Your task to perform on an android device: Open the calendar app, open the side menu, and click the "Day" option Image 0: 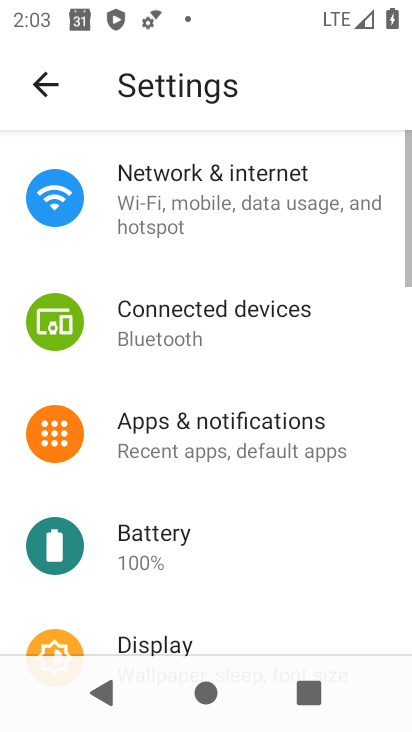
Step 0: press back button
Your task to perform on an android device: Open the calendar app, open the side menu, and click the "Day" option Image 1: 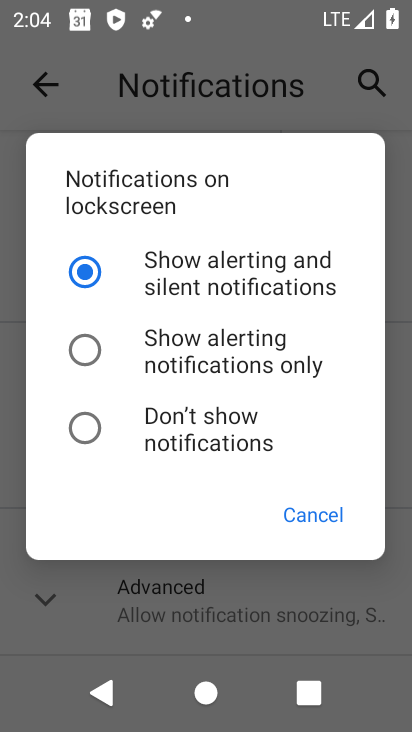
Step 1: click (315, 517)
Your task to perform on an android device: Open the calendar app, open the side menu, and click the "Day" option Image 2: 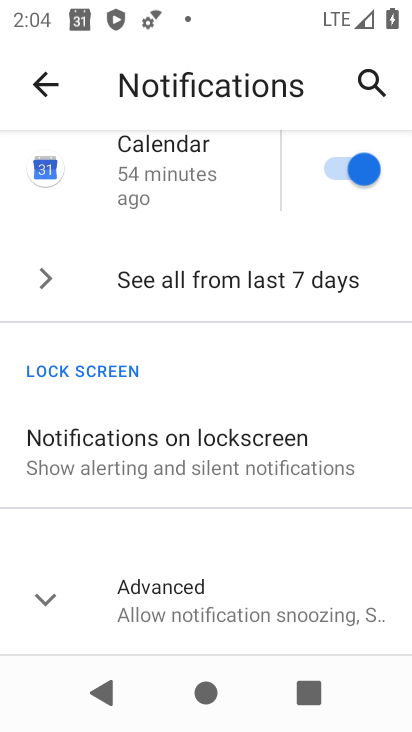
Step 2: press back button
Your task to perform on an android device: Open the calendar app, open the side menu, and click the "Day" option Image 3: 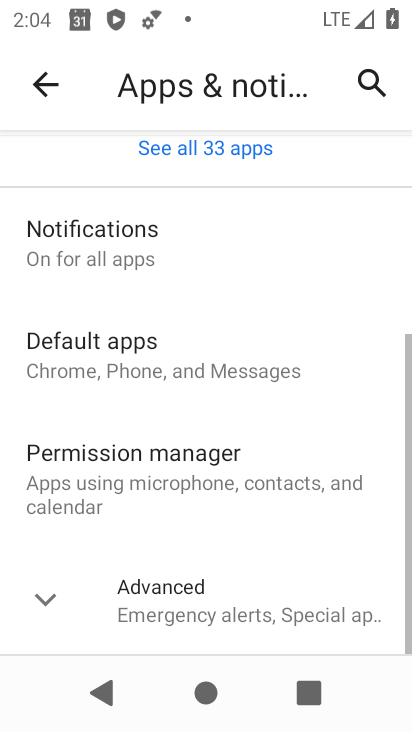
Step 3: press back button
Your task to perform on an android device: Open the calendar app, open the side menu, and click the "Day" option Image 4: 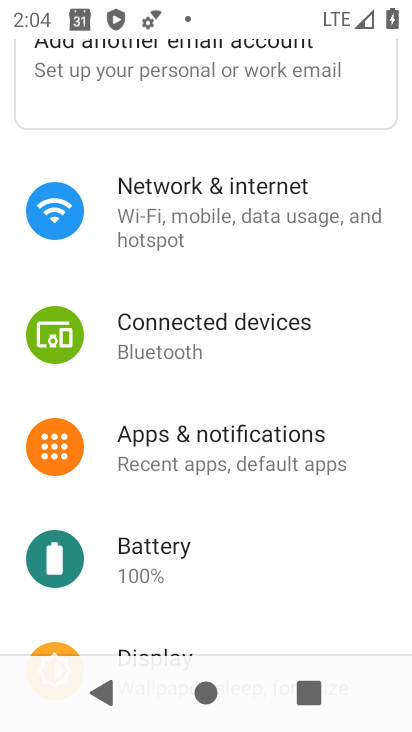
Step 4: press back button
Your task to perform on an android device: Open the calendar app, open the side menu, and click the "Day" option Image 5: 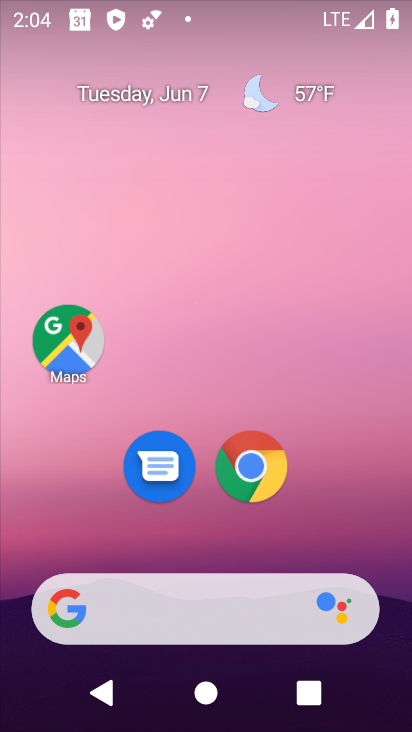
Step 5: drag from (203, 544) to (214, 64)
Your task to perform on an android device: Open the calendar app, open the side menu, and click the "Day" option Image 6: 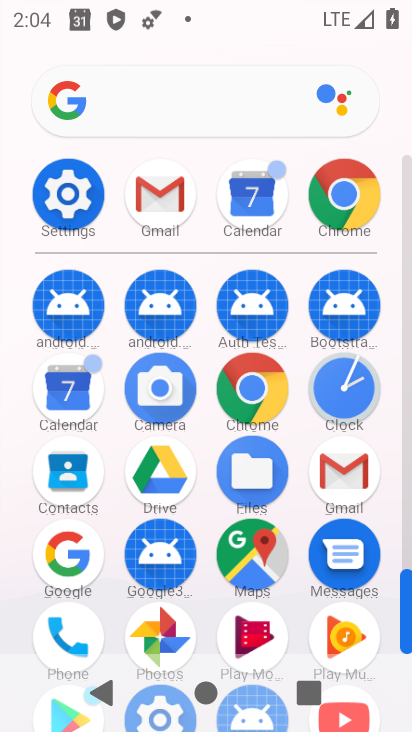
Step 6: click (74, 392)
Your task to perform on an android device: Open the calendar app, open the side menu, and click the "Day" option Image 7: 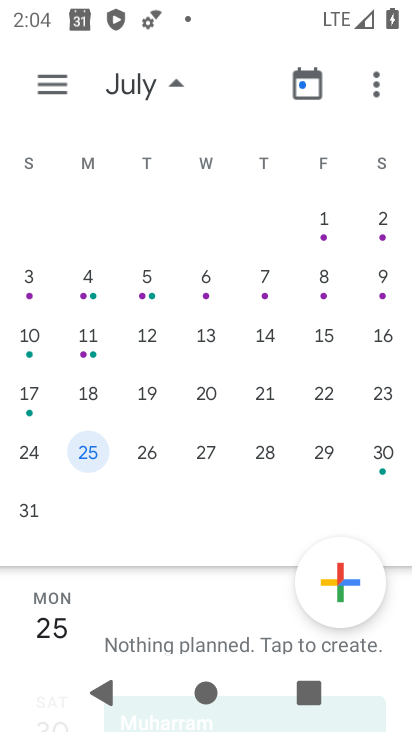
Step 7: click (38, 84)
Your task to perform on an android device: Open the calendar app, open the side menu, and click the "Day" option Image 8: 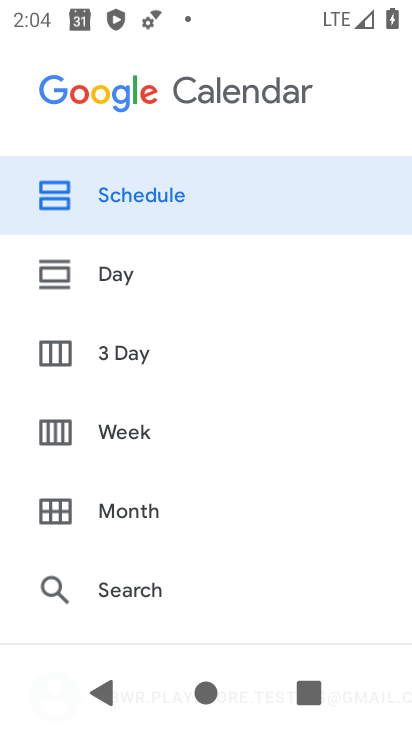
Step 8: click (131, 277)
Your task to perform on an android device: Open the calendar app, open the side menu, and click the "Day" option Image 9: 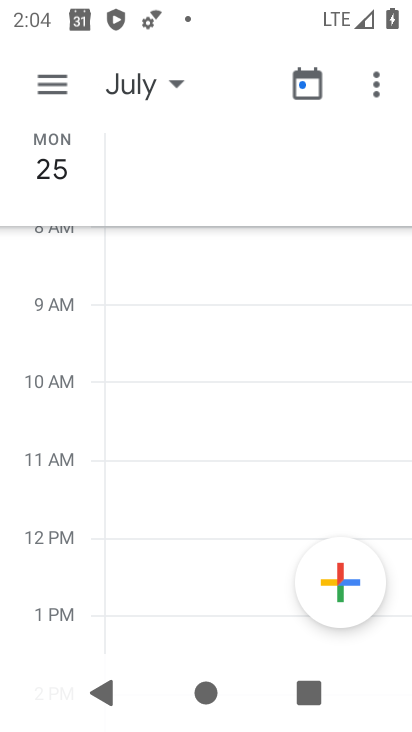
Step 9: task complete